Your task to perform on an android device: Search for the best custom wallets on Etsy. Image 0: 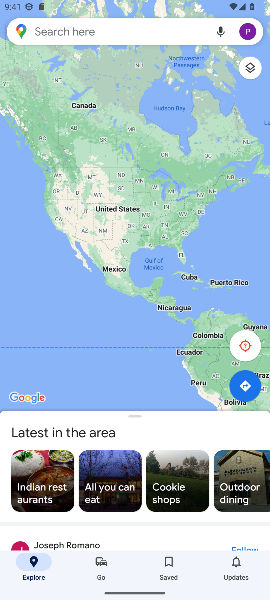
Step 0: press home button
Your task to perform on an android device: Search for the best custom wallets on Etsy. Image 1: 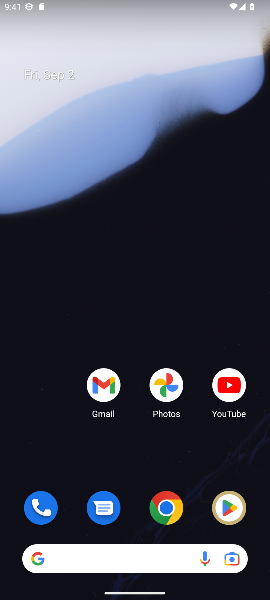
Step 1: click (168, 505)
Your task to perform on an android device: Search for the best custom wallets on Etsy. Image 2: 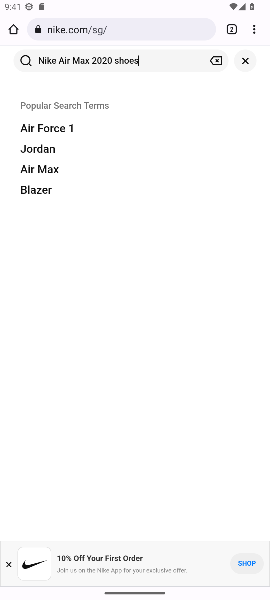
Step 2: click (86, 22)
Your task to perform on an android device: Search for the best custom wallets on Etsy. Image 3: 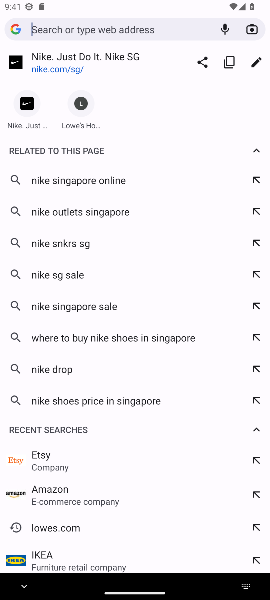
Step 3: type "Etsy"
Your task to perform on an android device: Search for the best custom wallets on Etsy. Image 4: 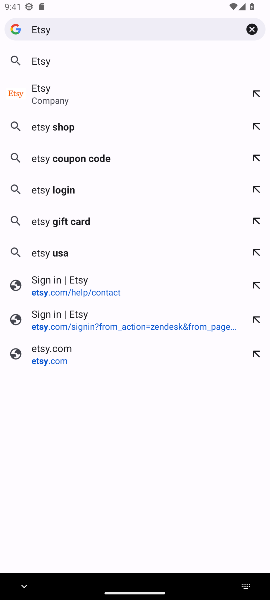
Step 4: click (42, 61)
Your task to perform on an android device: Search for the best custom wallets on Etsy. Image 5: 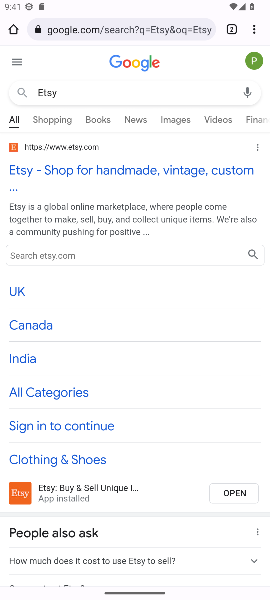
Step 5: click (79, 168)
Your task to perform on an android device: Search for the best custom wallets on Etsy. Image 6: 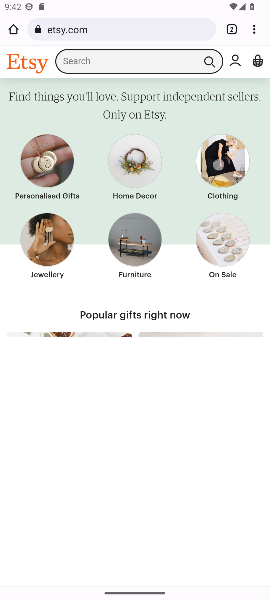
Step 6: click (144, 60)
Your task to perform on an android device: Search for the best custom wallets on Etsy. Image 7: 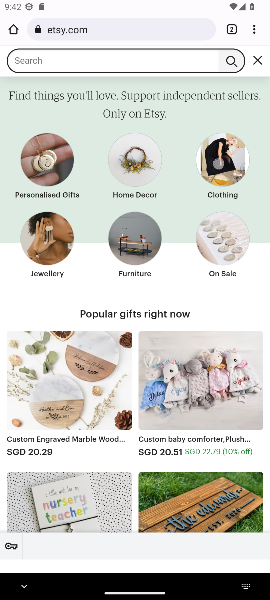
Step 7: type " best custom wallets"
Your task to perform on an android device: Search for the best custom wallets on Etsy. Image 8: 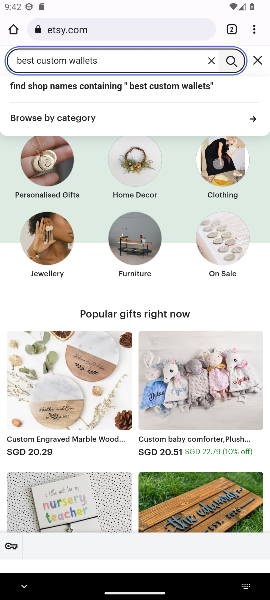
Step 8: click (232, 57)
Your task to perform on an android device: Search for the best custom wallets on Etsy. Image 9: 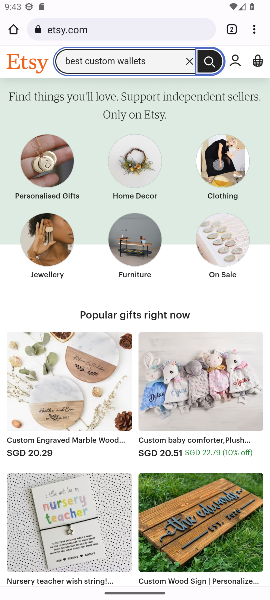
Step 9: task complete